Your task to perform on an android device: When is my next meeting? Image 0: 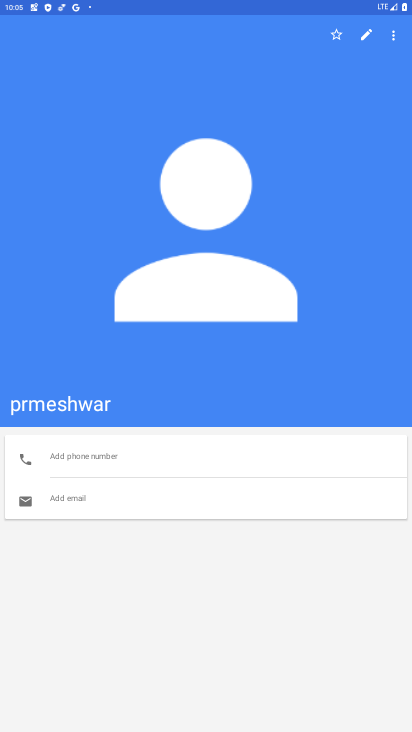
Step 0: press home button
Your task to perform on an android device: When is my next meeting? Image 1: 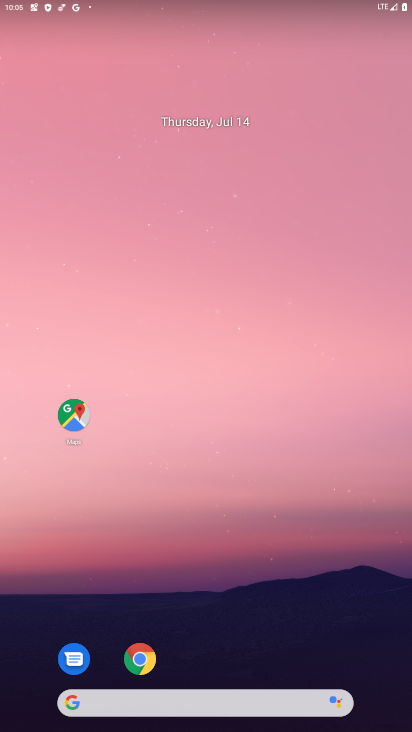
Step 1: drag from (299, 626) to (225, 162)
Your task to perform on an android device: When is my next meeting? Image 2: 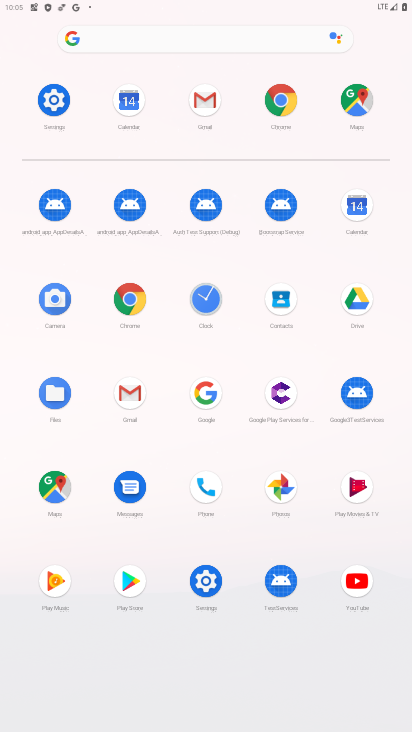
Step 2: click (355, 207)
Your task to perform on an android device: When is my next meeting? Image 3: 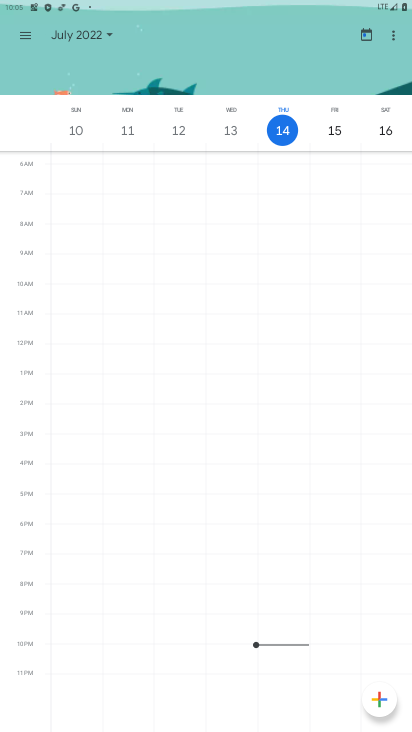
Step 3: task complete